Your task to perform on an android device: Open Google Image 0: 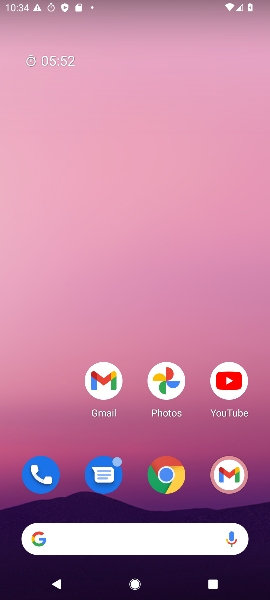
Step 0: click (37, 537)
Your task to perform on an android device: Open Google Image 1: 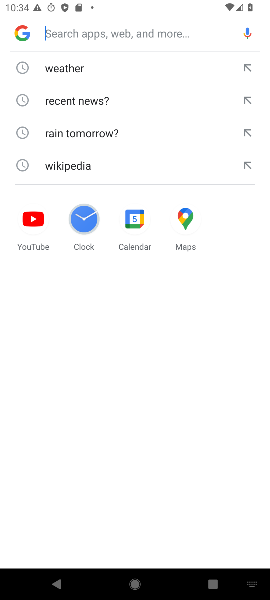
Step 1: click (24, 29)
Your task to perform on an android device: Open Google Image 2: 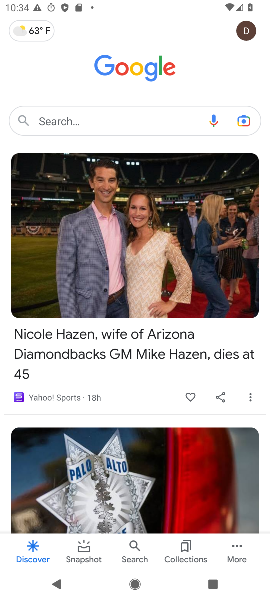
Step 2: task complete